Your task to perform on an android device: turn on the 24-hour format for clock Image 0: 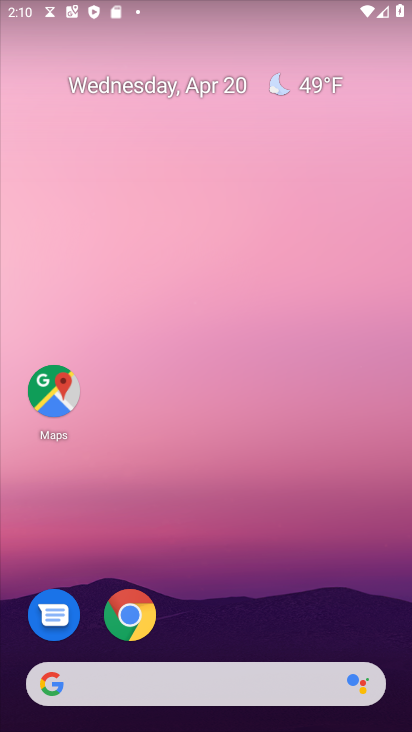
Step 0: drag from (332, 590) to (332, 212)
Your task to perform on an android device: turn on the 24-hour format for clock Image 1: 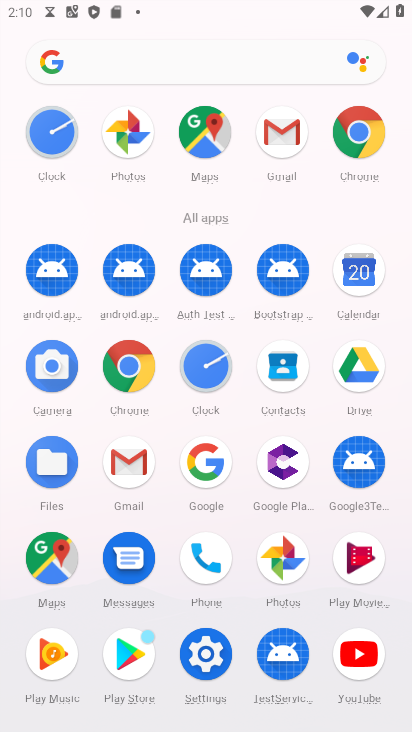
Step 1: click (195, 370)
Your task to perform on an android device: turn on the 24-hour format for clock Image 2: 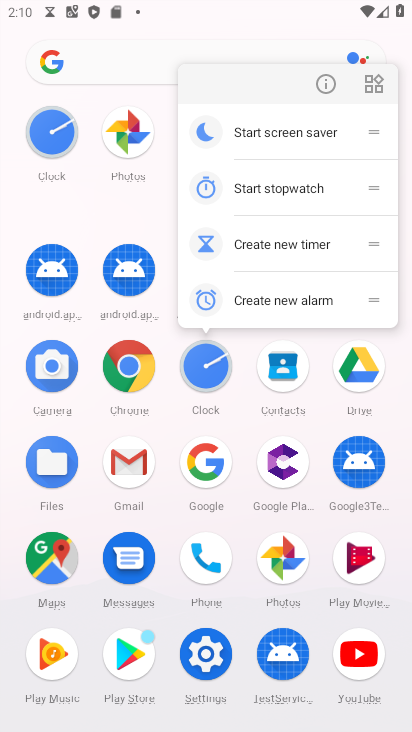
Step 2: click (332, 83)
Your task to perform on an android device: turn on the 24-hour format for clock Image 3: 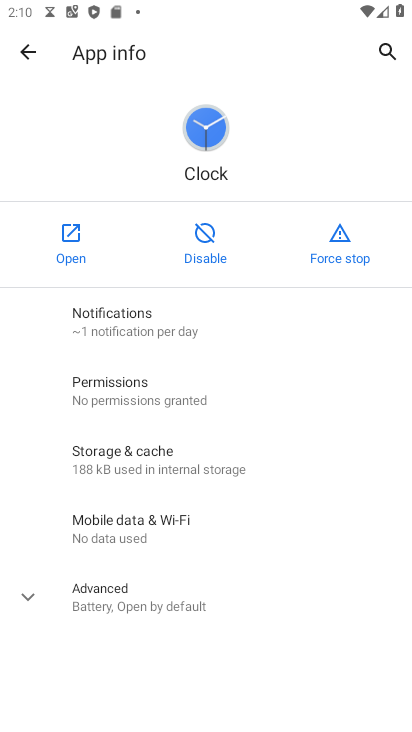
Step 3: click (75, 264)
Your task to perform on an android device: turn on the 24-hour format for clock Image 4: 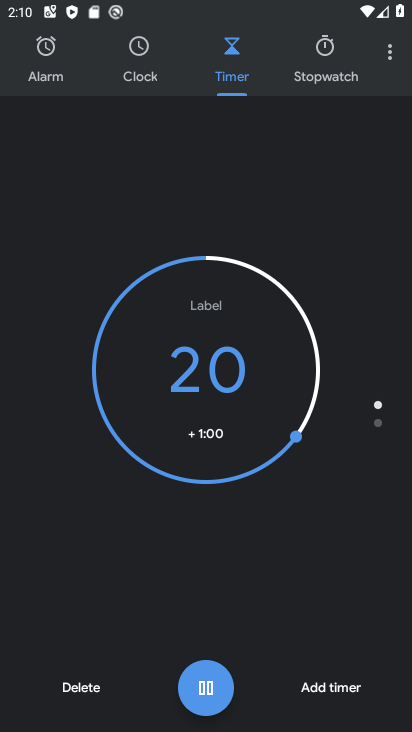
Step 4: click (400, 54)
Your task to perform on an android device: turn on the 24-hour format for clock Image 5: 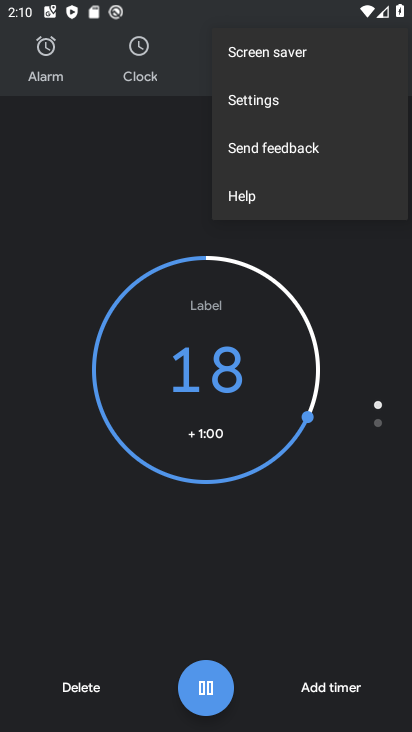
Step 5: click (283, 107)
Your task to perform on an android device: turn on the 24-hour format for clock Image 6: 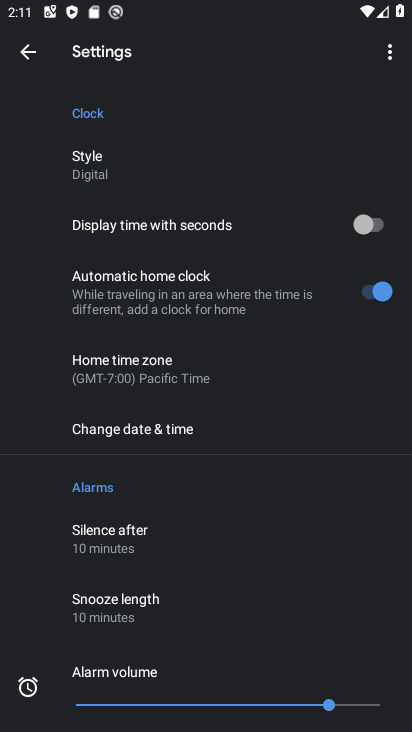
Step 6: drag from (249, 504) to (237, 440)
Your task to perform on an android device: turn on the 24-hour format for clock Image 7: 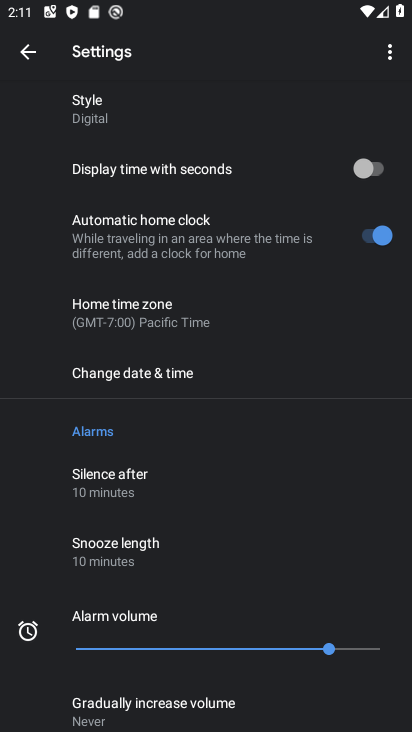
Step 7: click (200, 389)
Your task to perform on an android device: turn on the 24-hour format for clock Image 8: 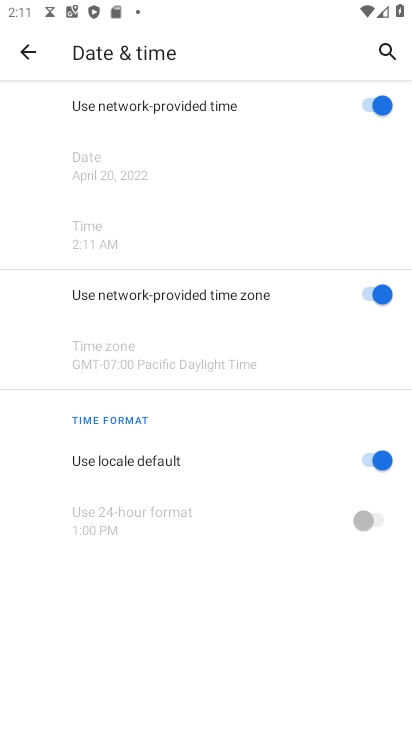
Step 8: drag from (249, 484) to (293, 363)
Your task to perform on an android device: turn on the 24-hour format for clock Image 9: 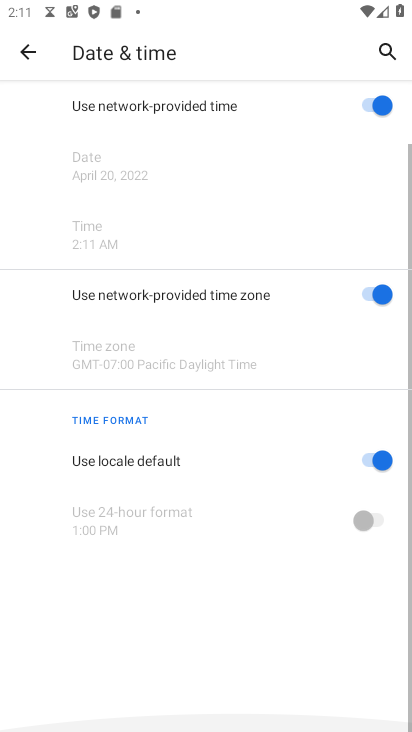
Step 9: click (356, 458)
Your task to perform on an android device: turn on the 24-hour format for clock Image 10: 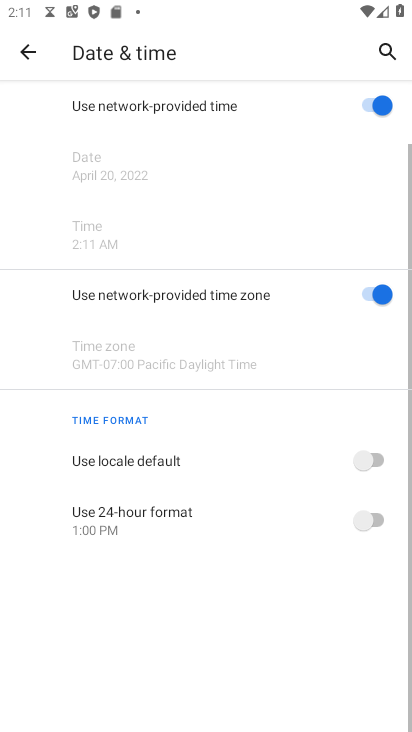
Step 10: click (364, 529)
Your task to perform on an android device: turn on the 24-hour format for clock Image 11: 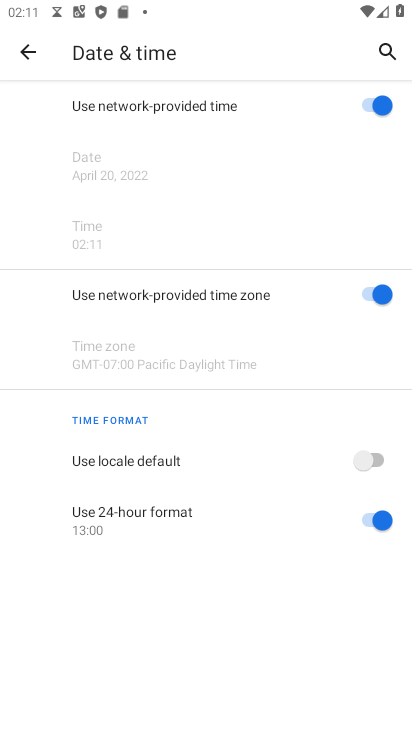
Step 11: task complete